Your task to perform on an android device: Is it going to rain this weekend? Image 0: 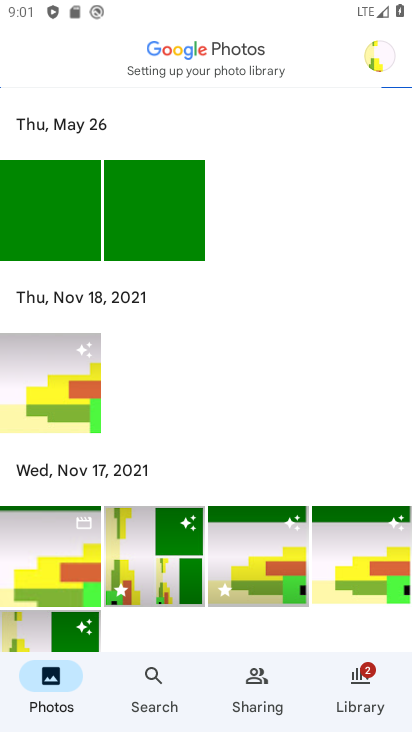
Step 0: press home button
Your task to perform on an android device: Is it going to rain this weekend? Image 1: 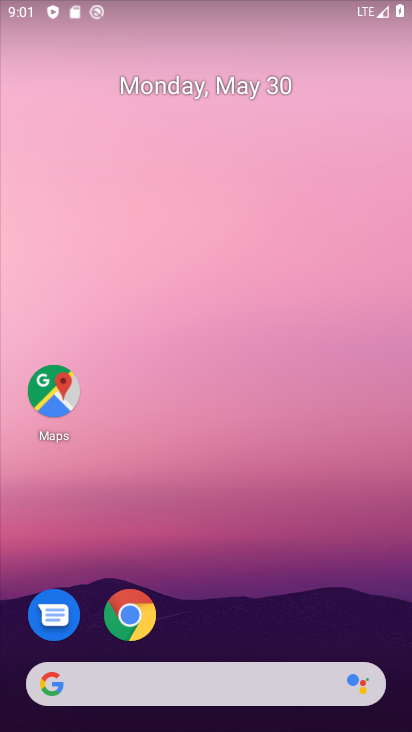
Step 1: click (151, 708)
Your task to perform on an android device: Is it going to rain this weekend? Image 2: 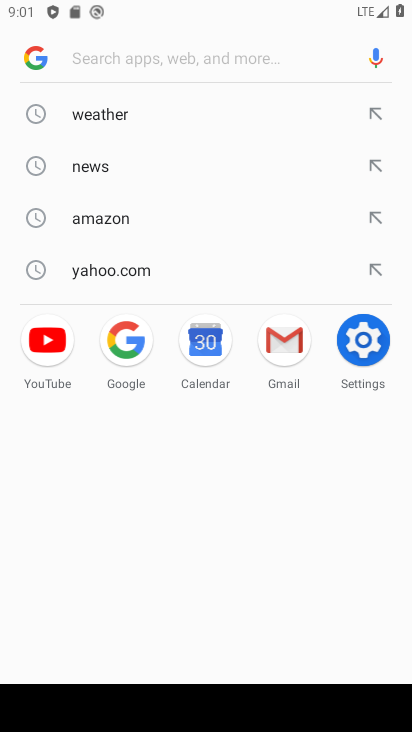
Step 2: click (109, 115)
Your task to perform on an android device: Is it going to rain this weekend? Image 3: 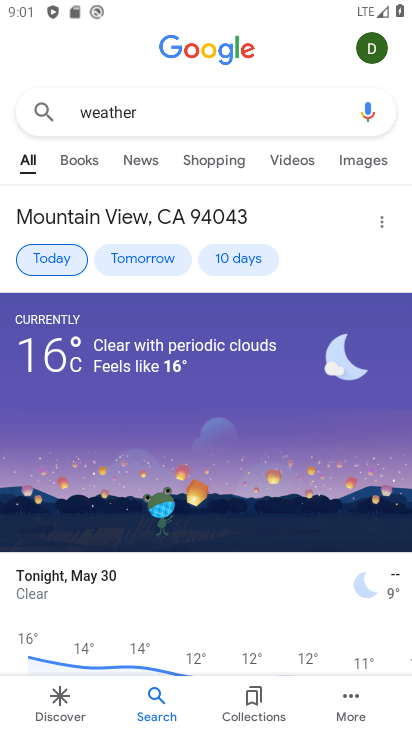
Step 3: click (234, 265)
Your task to perform on an android device: Is it going to rain this weekend? Image 4: 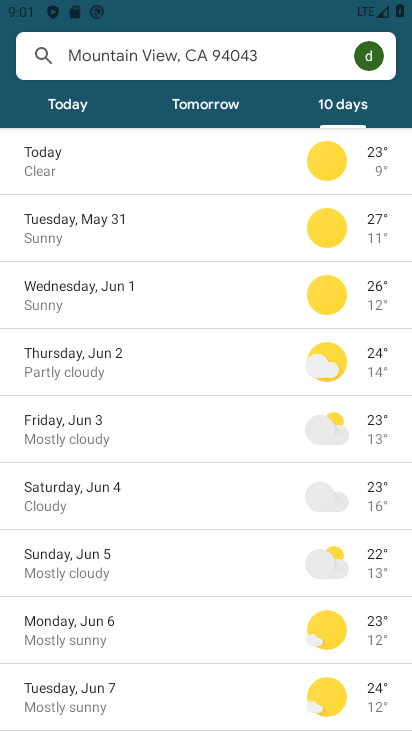
Step 4: task complete